Your task to perform on an android device: Go to Android settings Image 0: 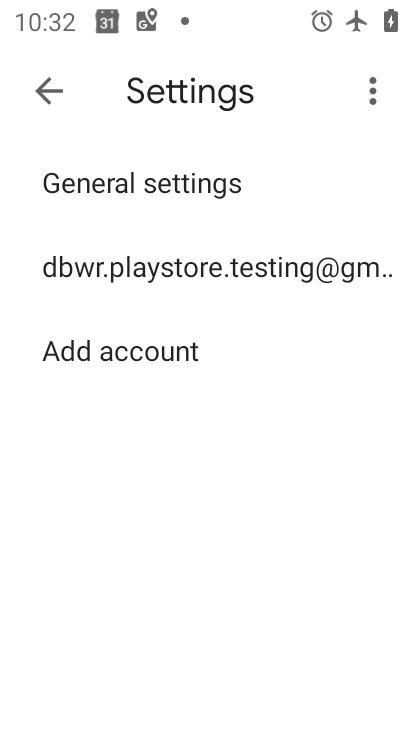
Step 0: press home button
Your task to perform on an android device: Go to Android settings Image 1: 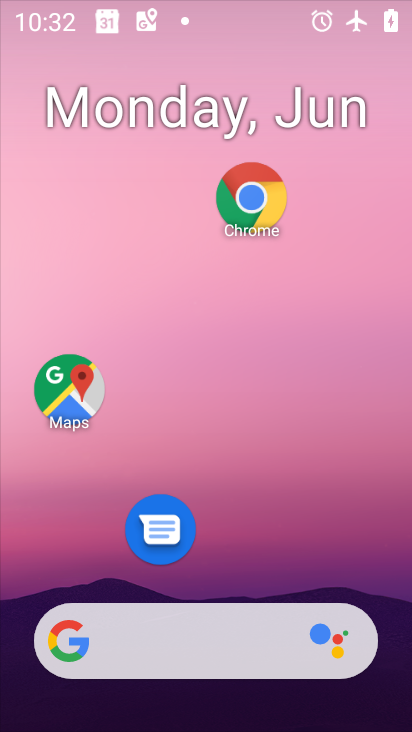
Step 1: drag from (202, 589) to (190, 145)
Your task to perform on an android device: Go to Android settings Image 2: 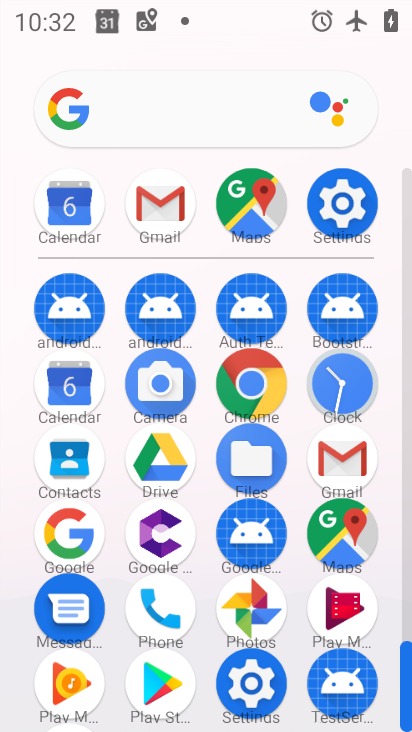
Step 2: click (338, 216)
Your task to perform on an android device: Go to Android settings Image 3: 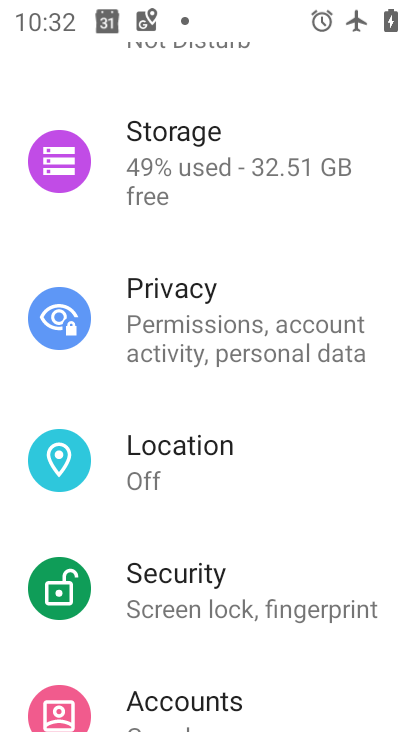
Step 3: task complete